Your task to perform on an android device: open app "McDonald's" Image 0: 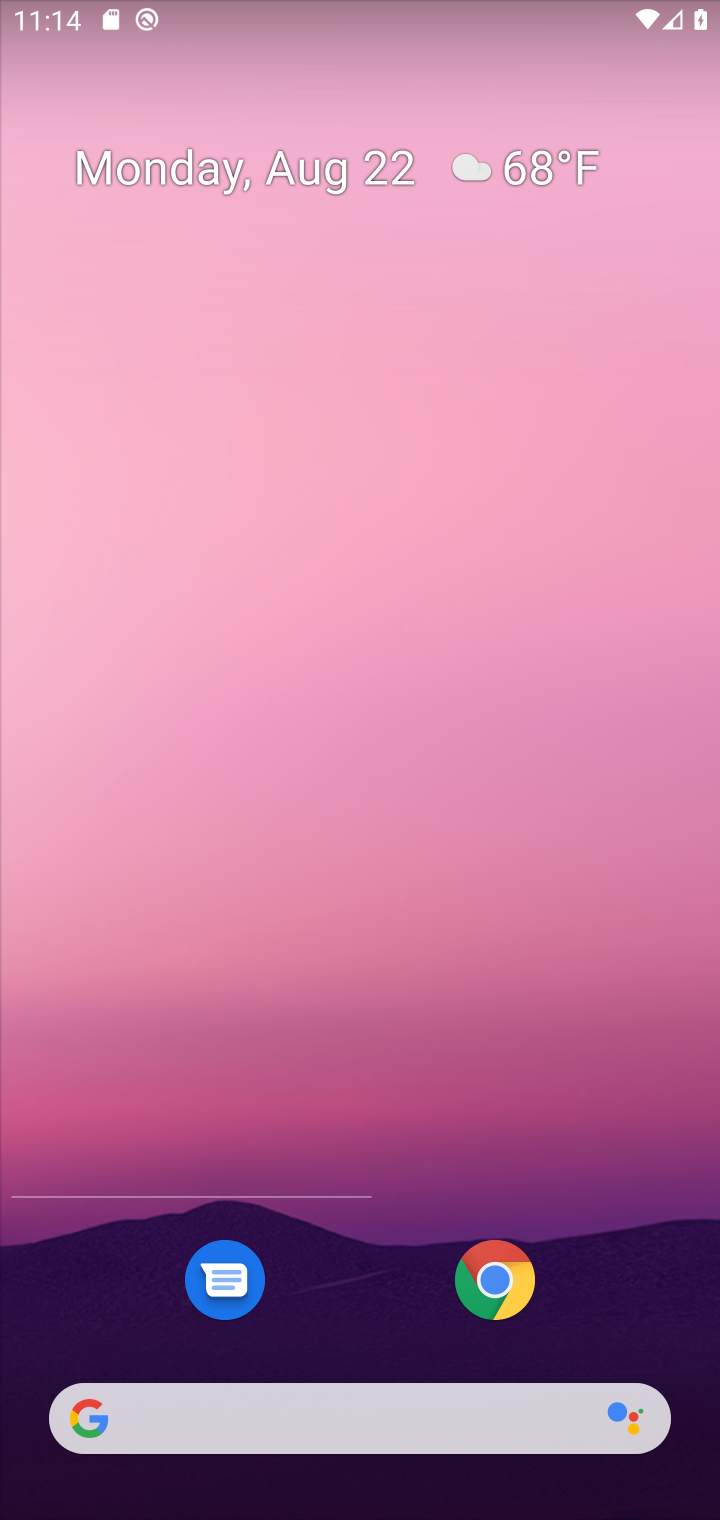
Step 0: press home button
Your task to perform on an android device: open app "McDonald's" Image 1: 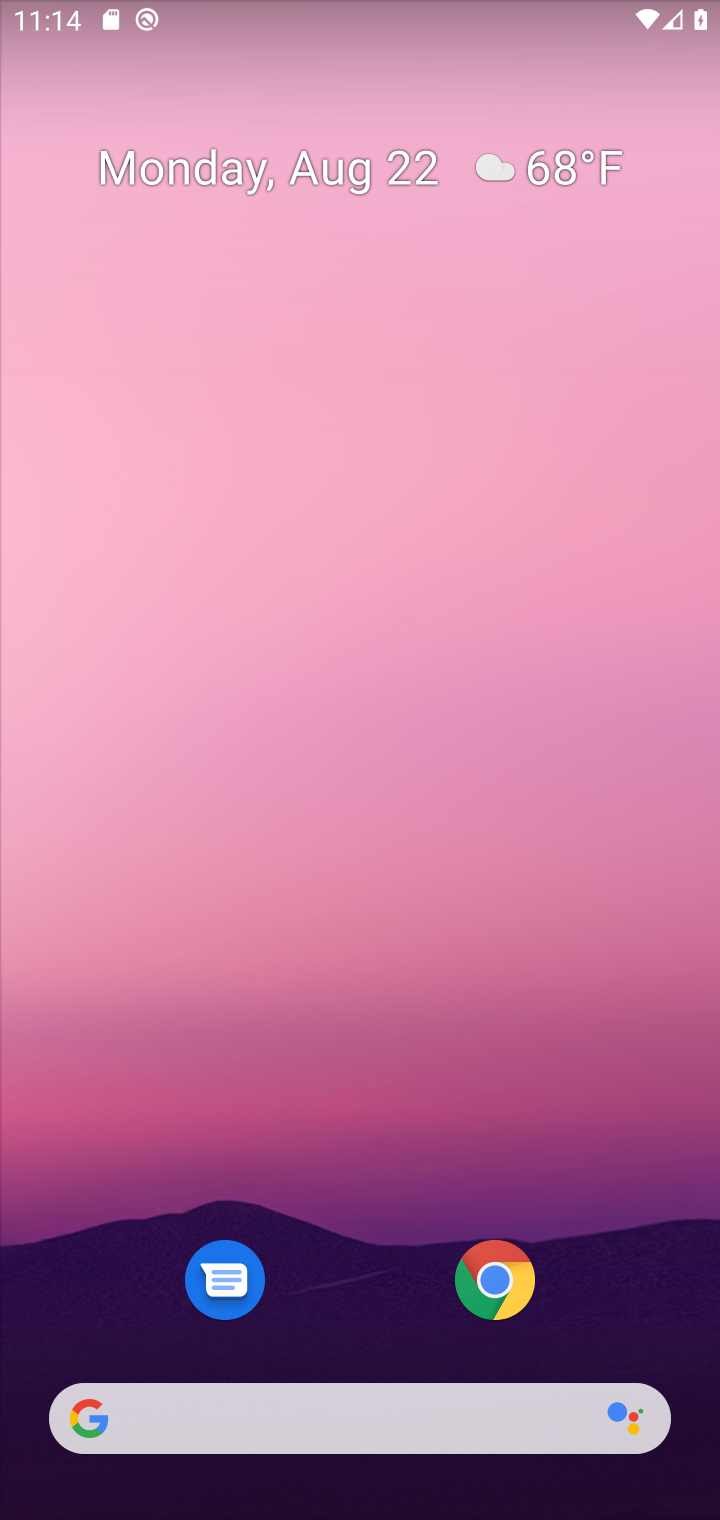
Step 1: drag from (397, 1319) to (546, 4)
Your task to perform on an android device: open app "McDonald's" Image 2: 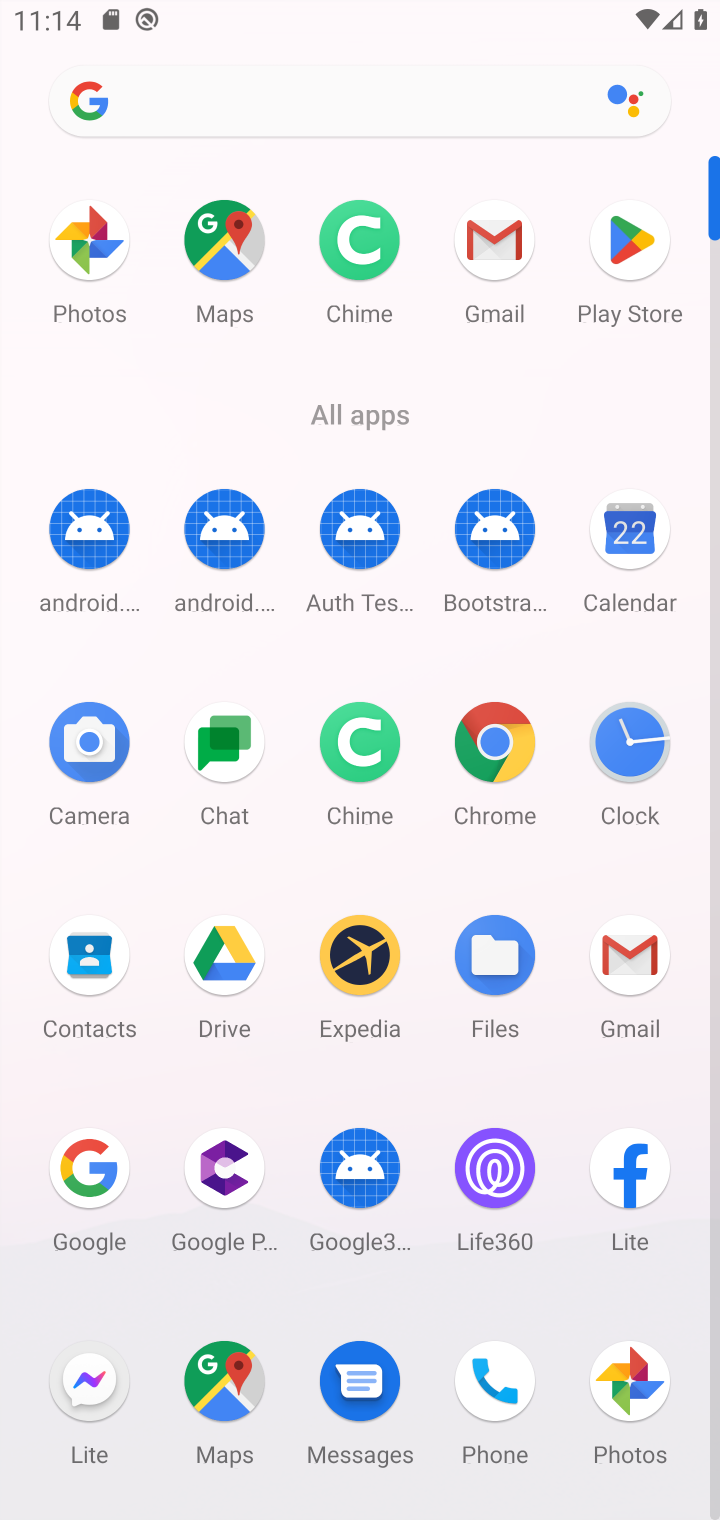
Step 2: click (629, 223)
Your task to perform on an android device: open app "McDonald's" Image 3: 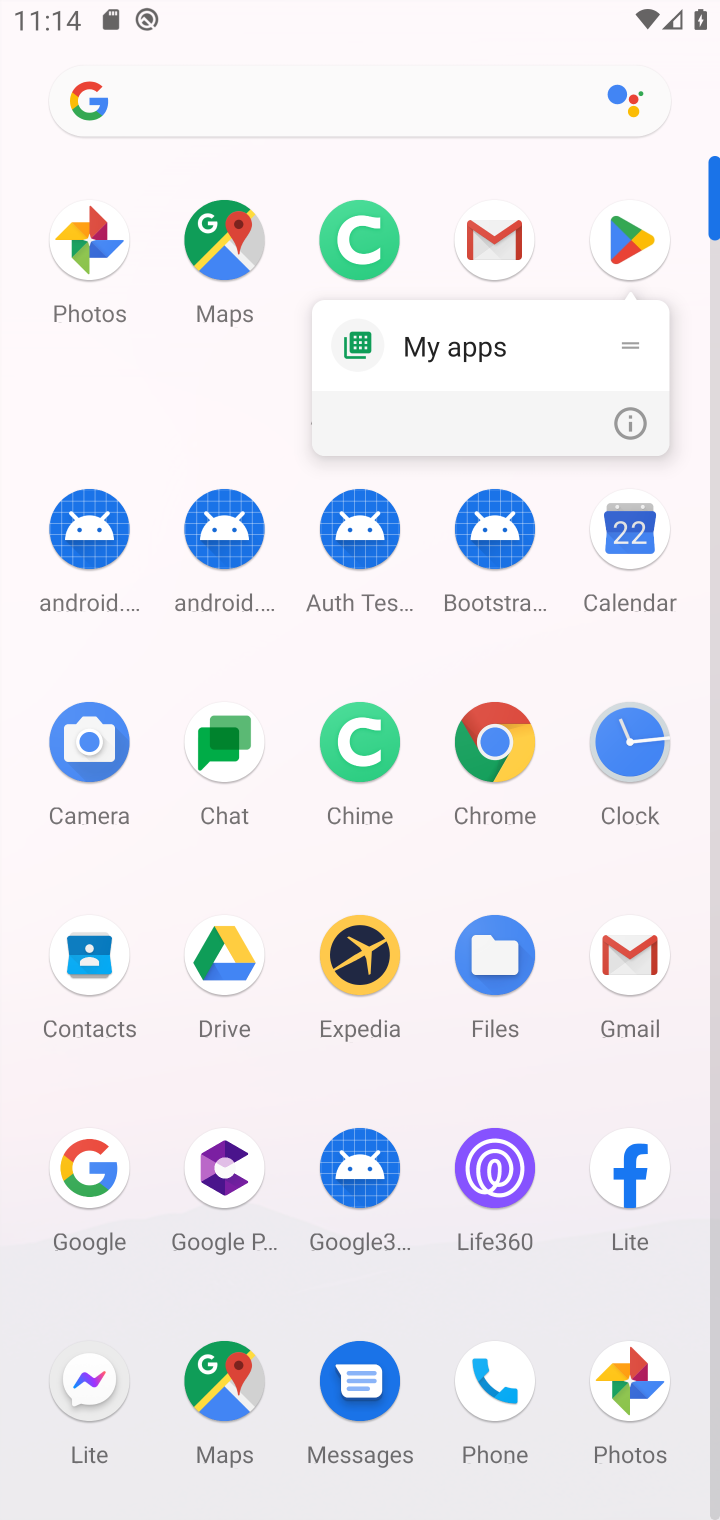
Step 3: click (637, 231)
Your task to perform on an android device: open app "McDonald's" Image 4: 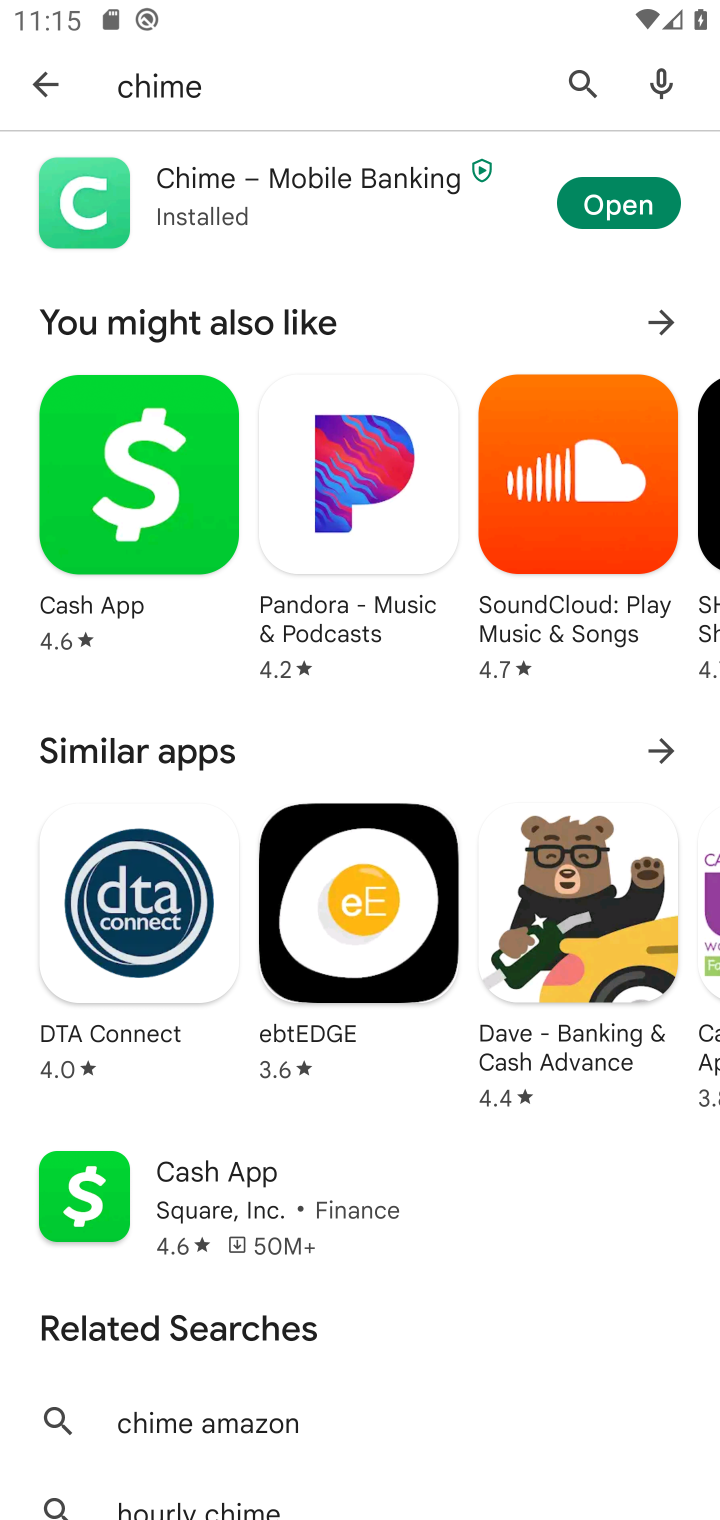
Step 4: click (567, 68)
Your task to perform on an android device: open app "McDonald's" Image 5: 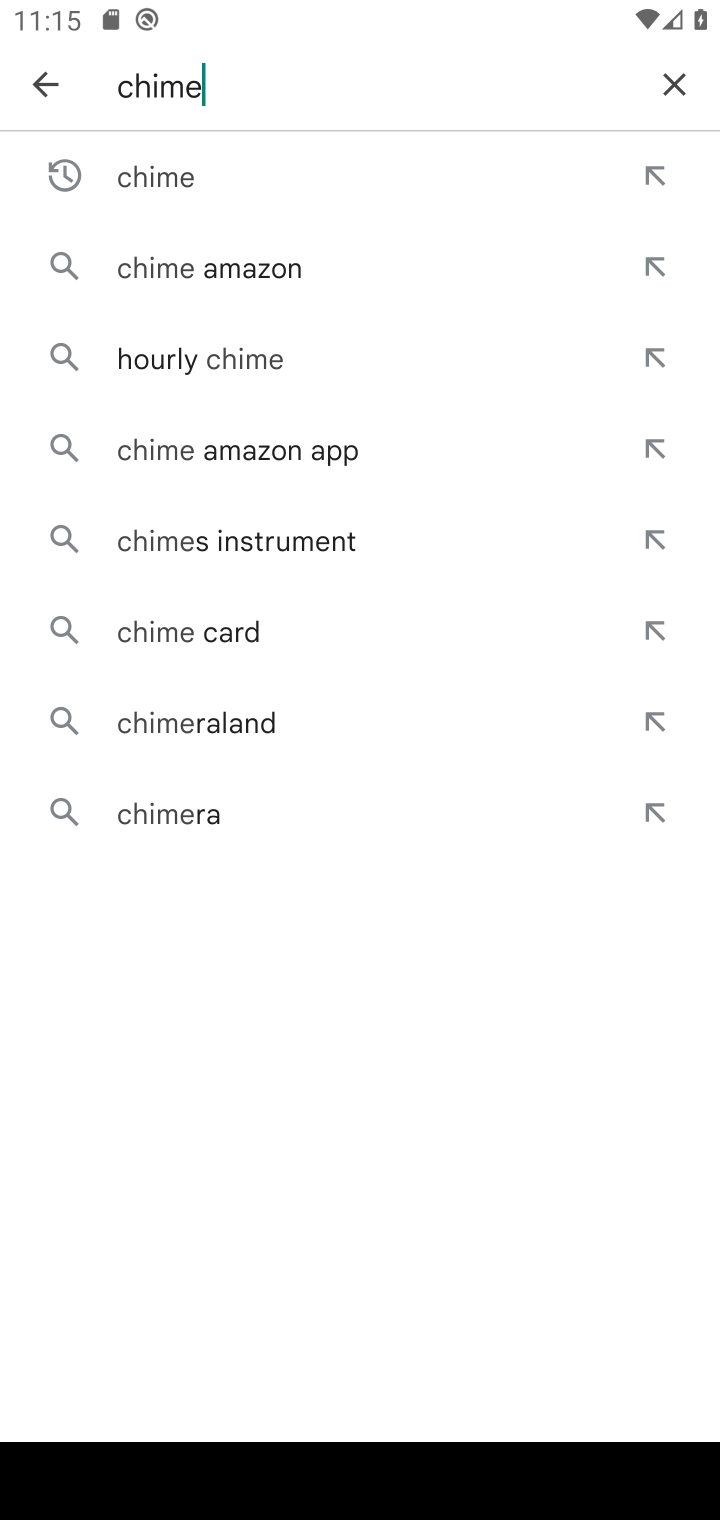
Step 5: click (667, 76)
Your task to perform on an android device: open app "McDonald's" Image 6: 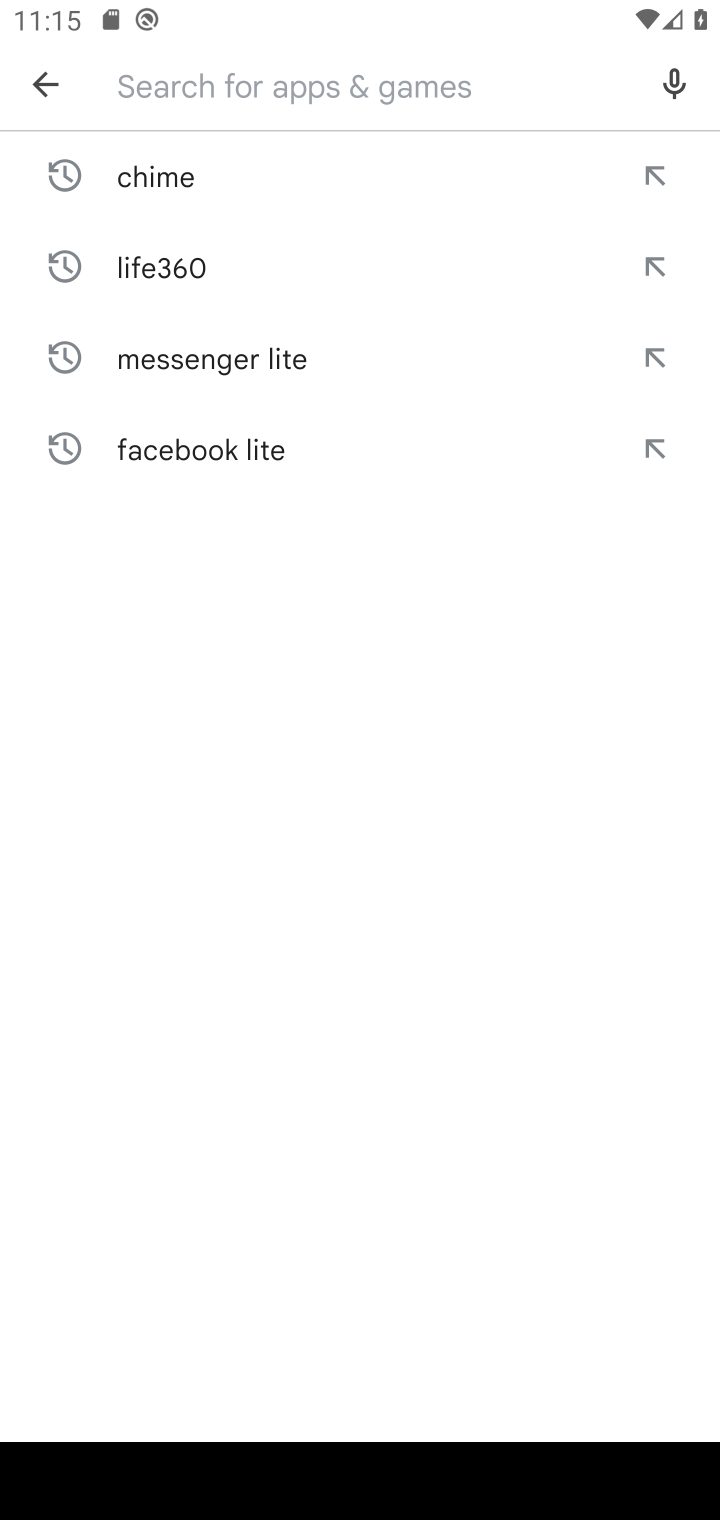
Step 6: type "McDonald's"
Your task to perform on an android device: open app "McDonald's" Image 7: 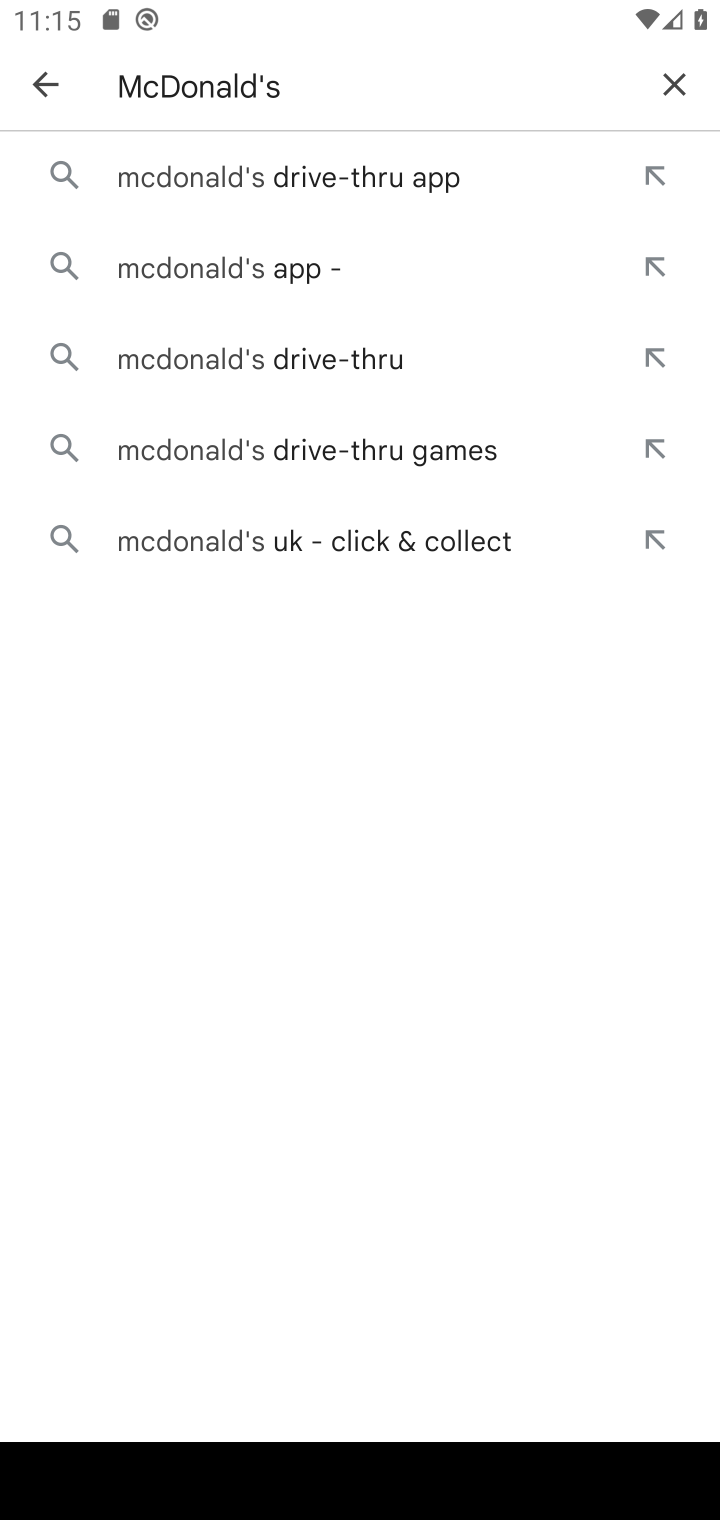
Step 7: click (335, 278)
Your task to perform on an android device: open app "McDonald's" Image 8: 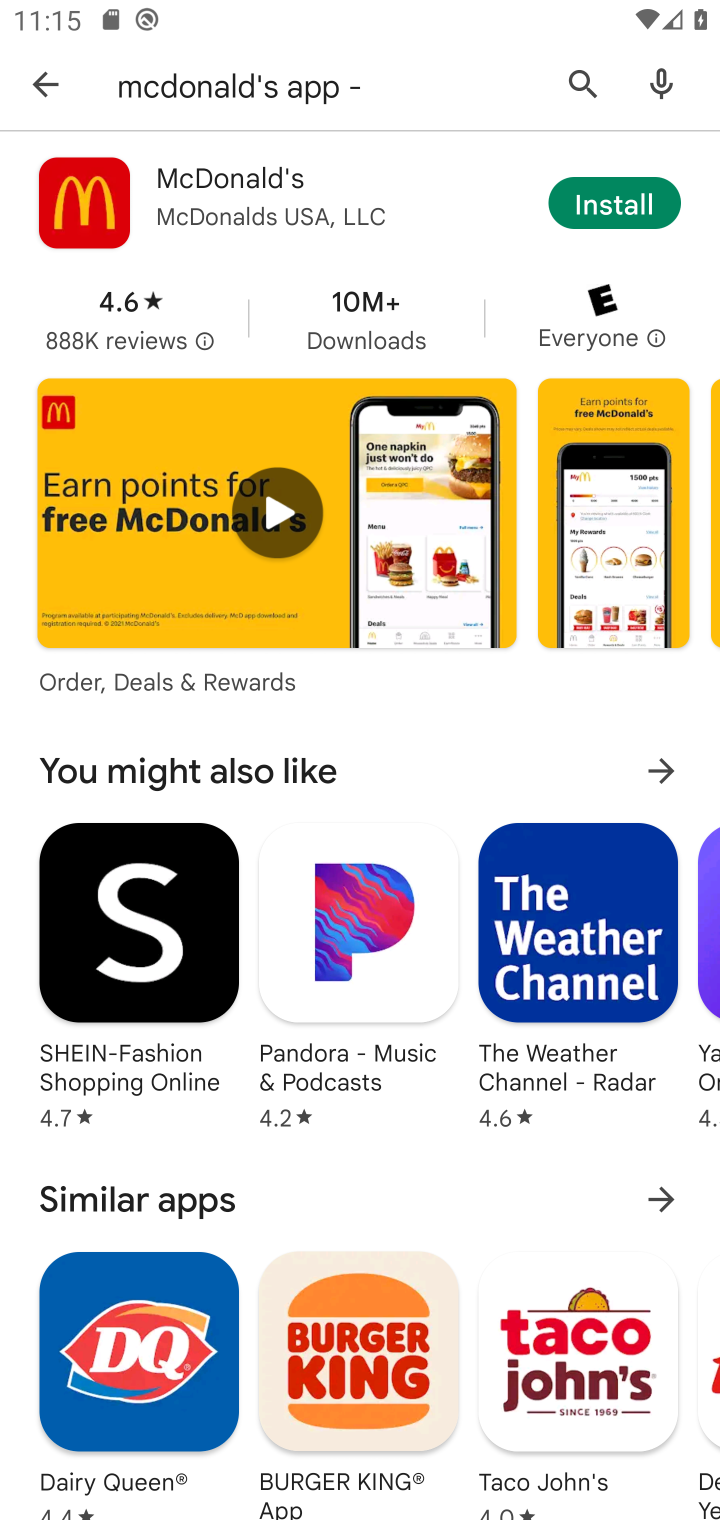
Step 8: task complete